Your task to perform on an android device: Set the phone to "Do not disturb". Image 0: 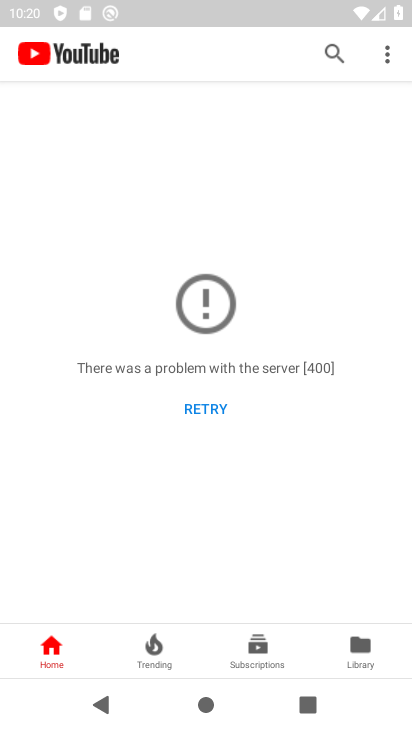
Step 0: drag from (275, 615) to (312, 440)
Your task to perform on an android device: Set the phone to "Do not disturb". Image 1: 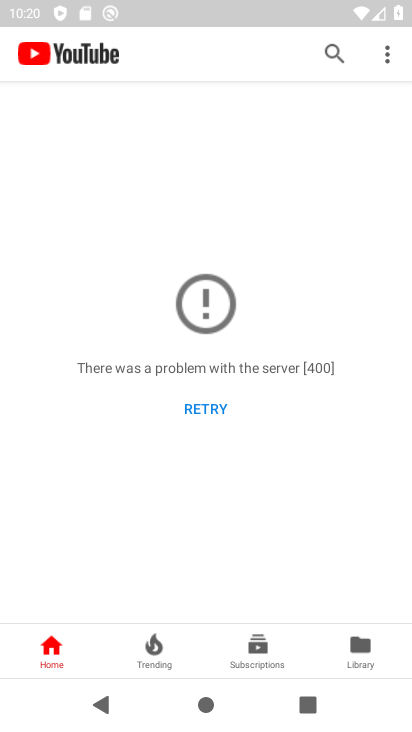
Step 1: press home button
Your task to perform on an android device: Set the phone to "Do not disturb". Image 2: 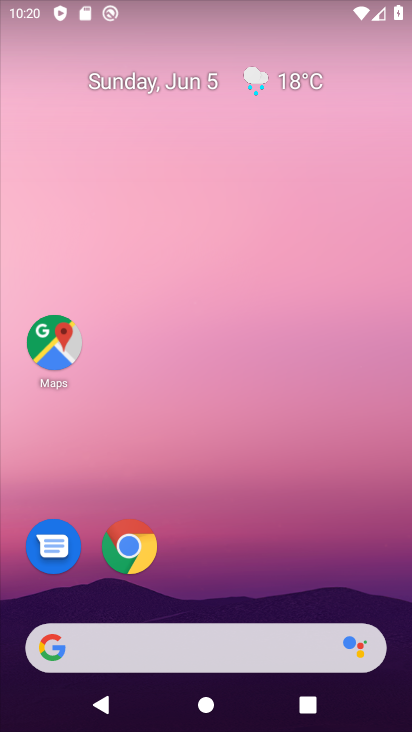
Step 2: drag from (189, 584) to (270, 89)
Your task to perform on an android device: Set the phone to "Do not disturb". Image 3: 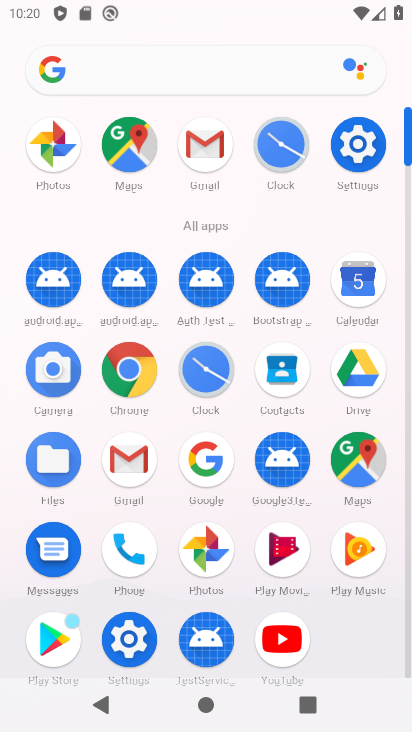
Step 3: click (130, 647)
Your task to perform on an android device: Set the phone to "Do not disturb". Image 4: 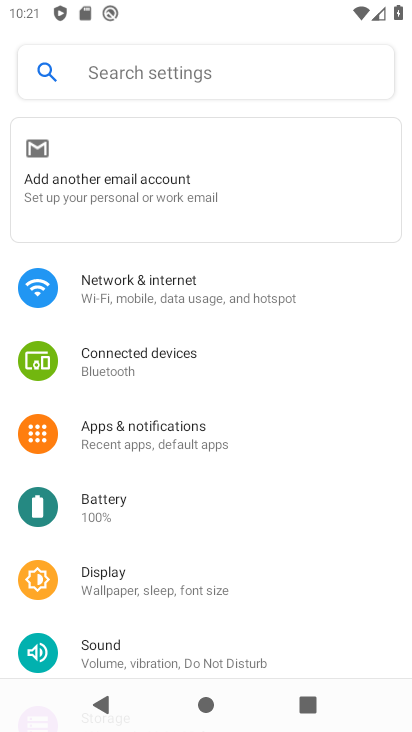
Step 4: drag from (221, 605) to (309, 438)
Your task to perform on an android device: Set the phone to "Do not disturb". Image 5: 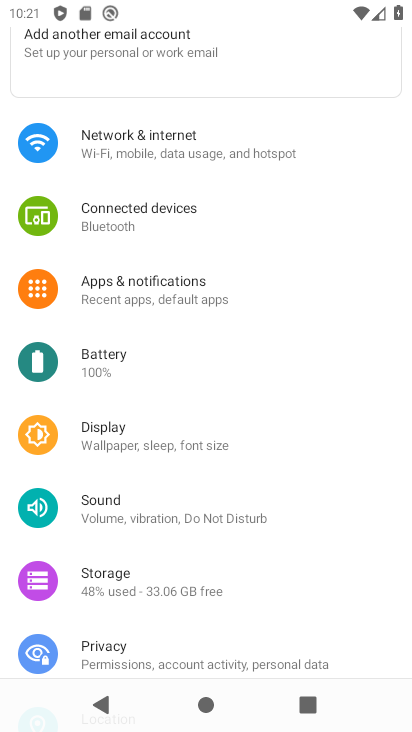
Step 5: click (185, 306)
Your task to perform on an android device: Set the phone to "Do not disturb". Image 6: 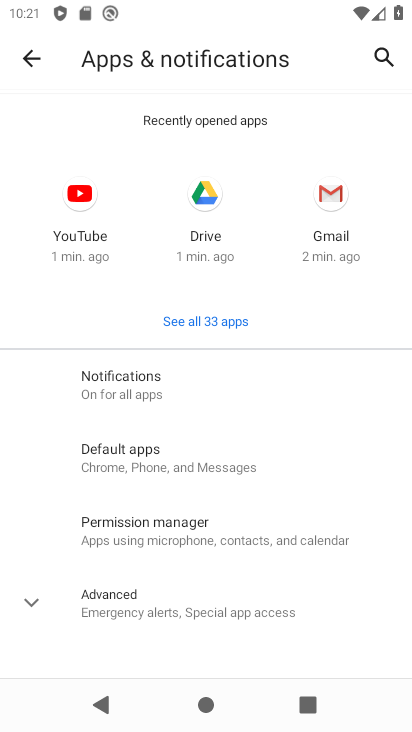
Step 6: click (156, 393)
Your task to perform on an android device: Set the phone to "Do not disturb". Image 7: 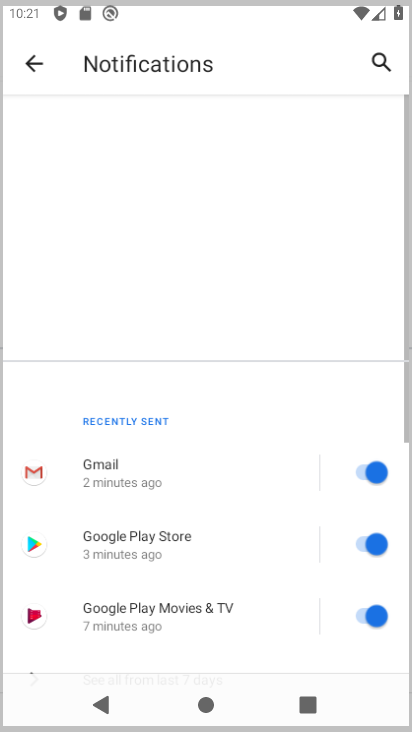
Step 7: drag from (231, 640) to (410, 111)
Your task to perform on an android device: Set the phone to "Do not disturb". Image 8: 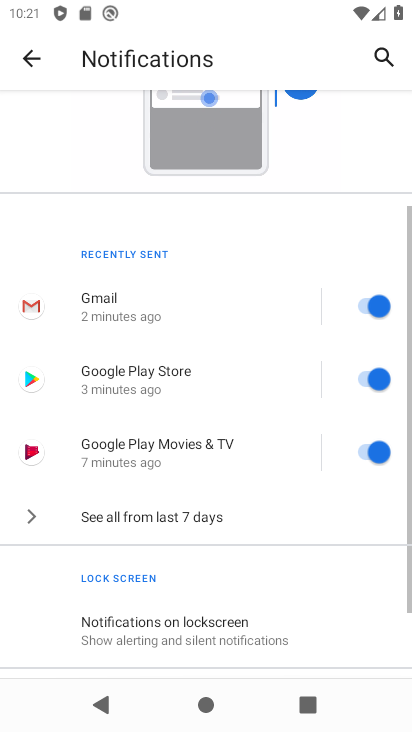
Step 8: drag from (218, 599) to (318, 16)
Your task to perform on an android device: Set the phone to "Do not disturb". Image 9: 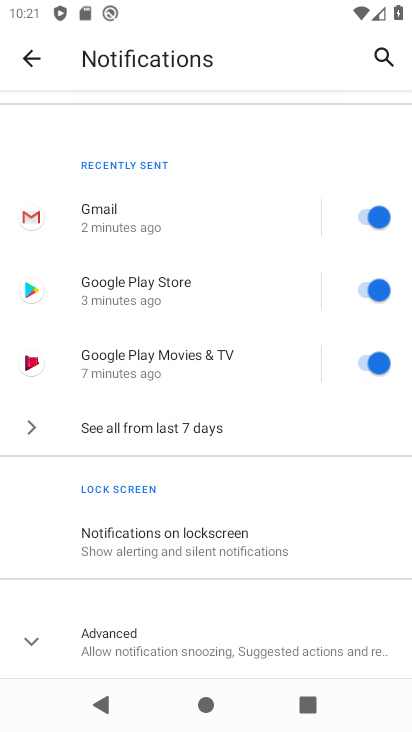
Step 9: click (161, 641)
Your task to perform on an android device: Set the phone to "Do not disturb". Image 10: 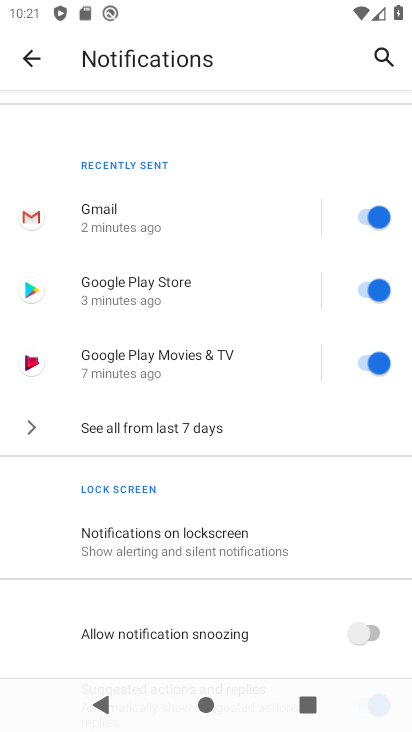
Step 10: drag from (186, 629) to (216, 135)
Your task to perform on an android device: Set the phone to "Do not disturb". Image 11: 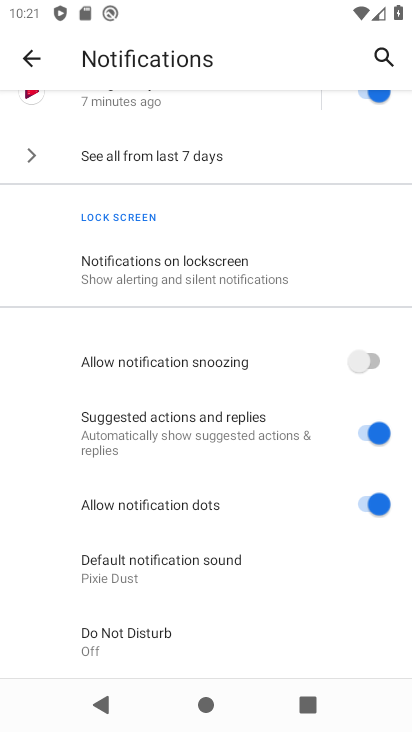
Step 11: drag from (206, 626) to (247, 211)
Your task to perform on an android device: Set the phone to "Do not disturb". Image 12: 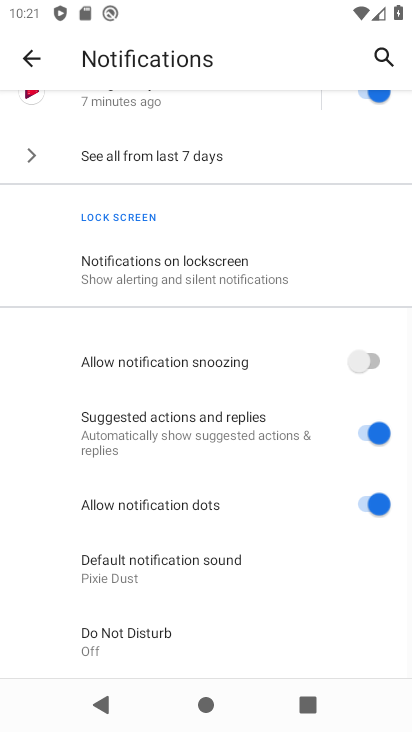
Step 12: click (173, 638)
Your task to perform on an android device: Set the phone to "Do not disturb". Image 13: 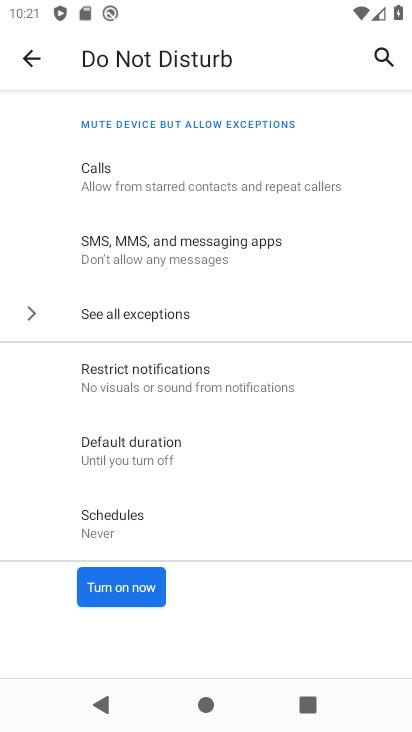
Step 13: drag from (230, 570) to (336, 27)
Your task to perform on an android device: Set the phone to "Do not disturb". Image 14: 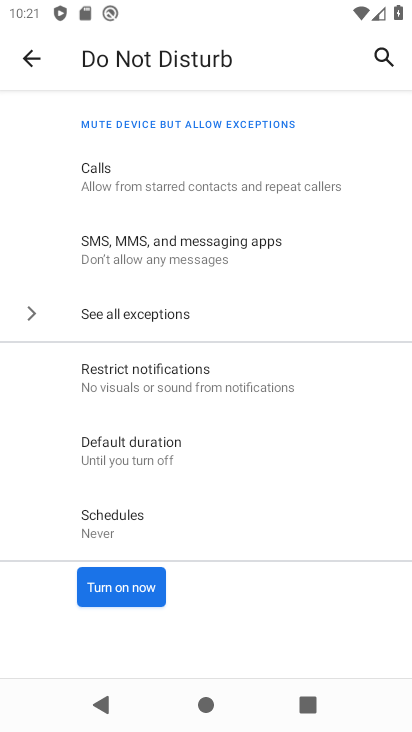
Step 14: click (123, 592)
Your task to perform on an android device: Set the phone to "Do not disturb". Image 15: 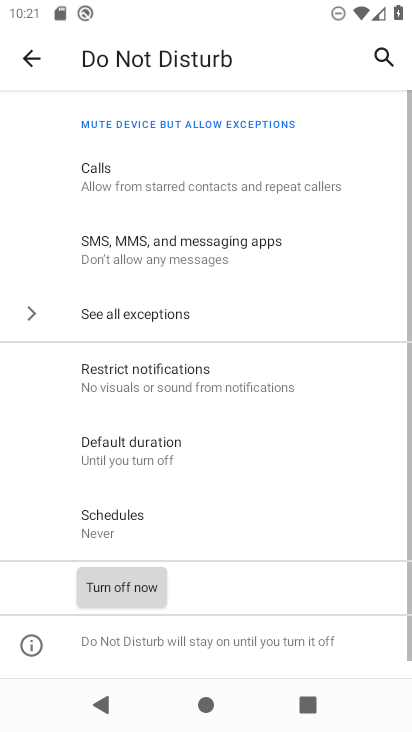
Step 15: task complete